Your task to perform on an android device: turn off notifications settings in the gmail app Image 0: 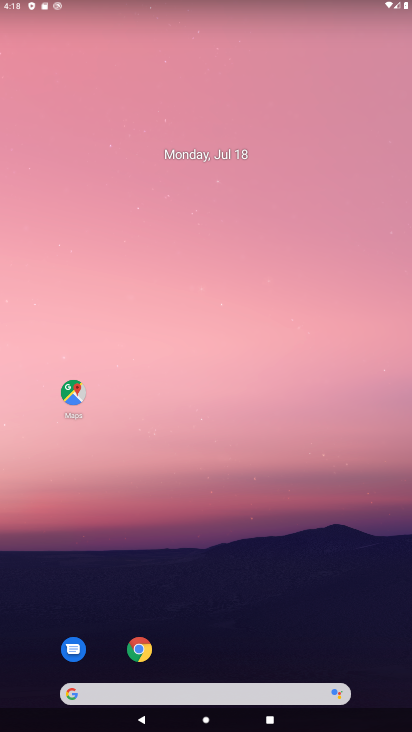
Step 0: drag from (229, 635) to (309, 1)
Your task to perform on an android device: turn off notifications settings in the gmail app Image 1: 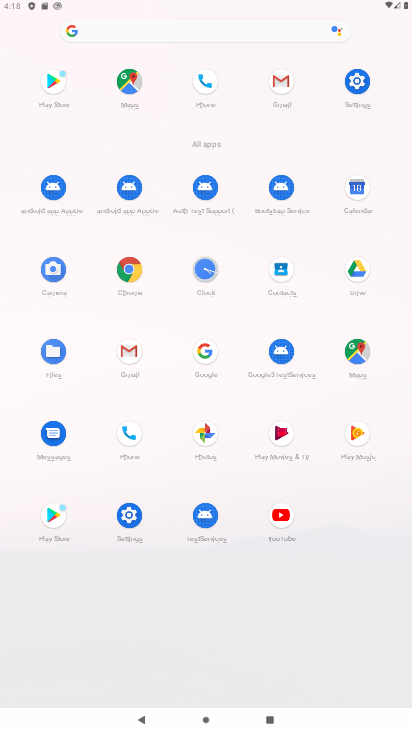
Step 1: click (128, 356)
Your task to perform on an android device: turn off notifications settings in the gmail app Image 2: 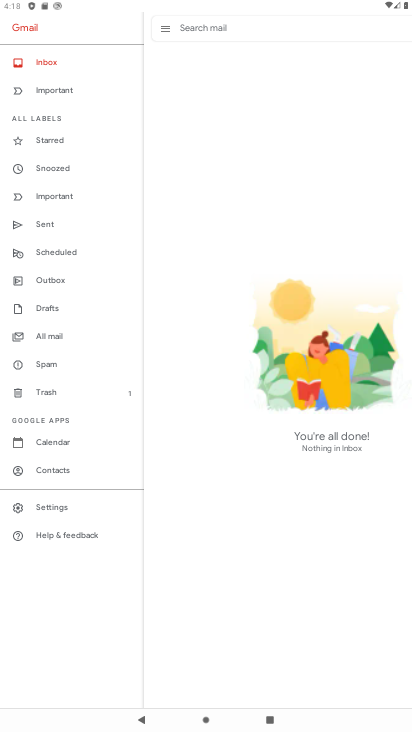
Step 2: click (64, 511)
Your task to perform on an android device: turn off notifications settings in the gmail app Image 3: 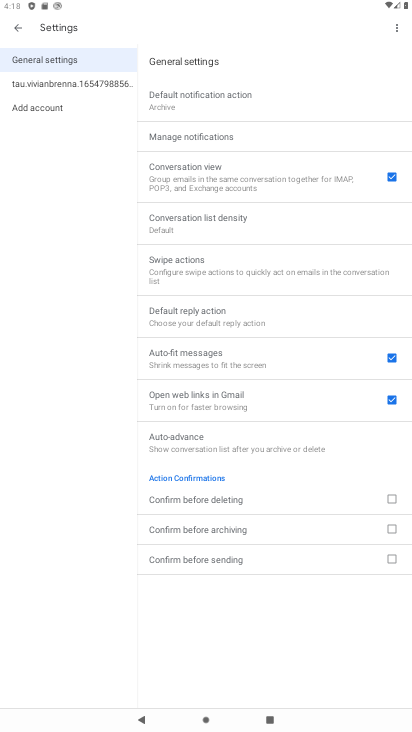
Step 3: click (211, 141)
Your task to perform on an android device: turn off notifications settings in the gmail app Image 4: 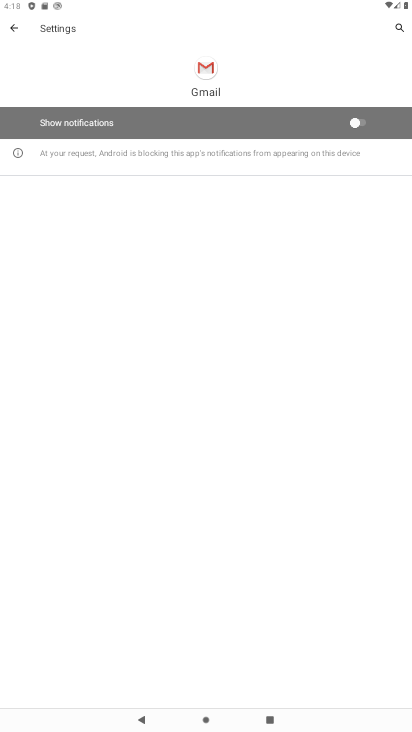
Step 4: task complete